Your task to perform on an android device: Open battery settings Image 0: 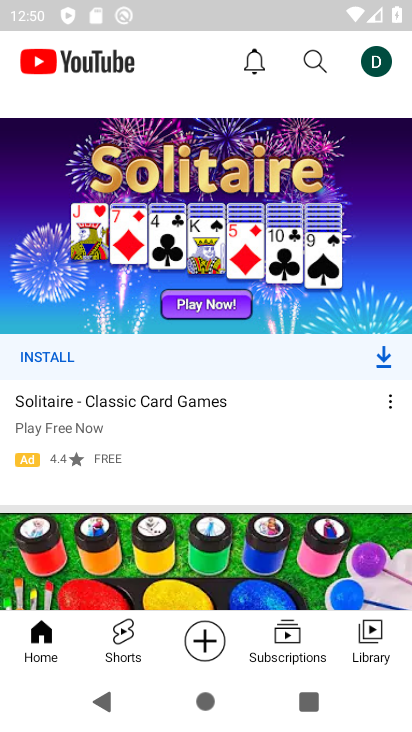
Step 0: press home button
Your task to perform on an android device: Open battery settings Image 1: 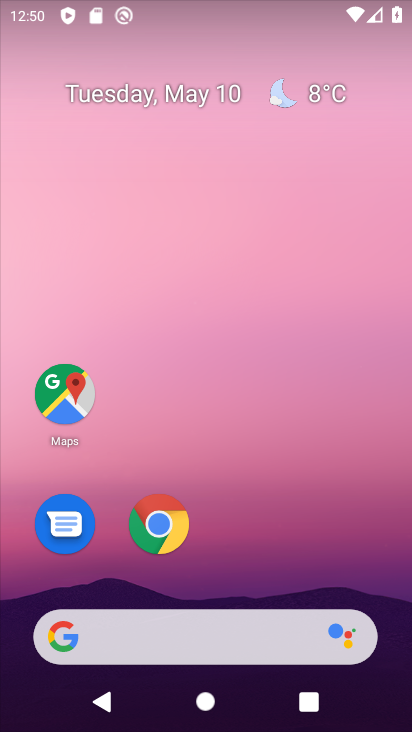
Step 1: drag from (243, 511) to (213, 44)
Your task to perform on an android device: Open battery settings Image 2: 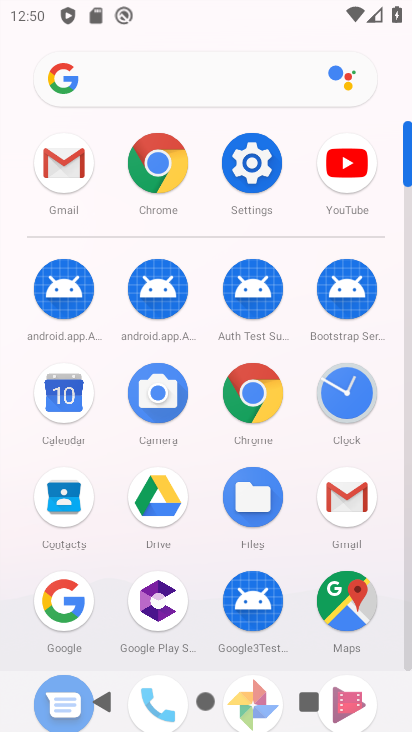
Step 2: click (245, 156)
Your task to perform on an android device: Open battery settings Image 3: 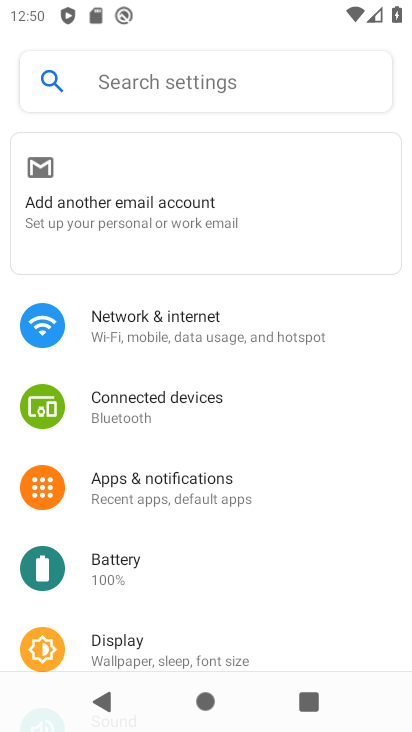
Step 3: click (155, 569)
Your task to perform on an android device: Open battery settings Image 4: 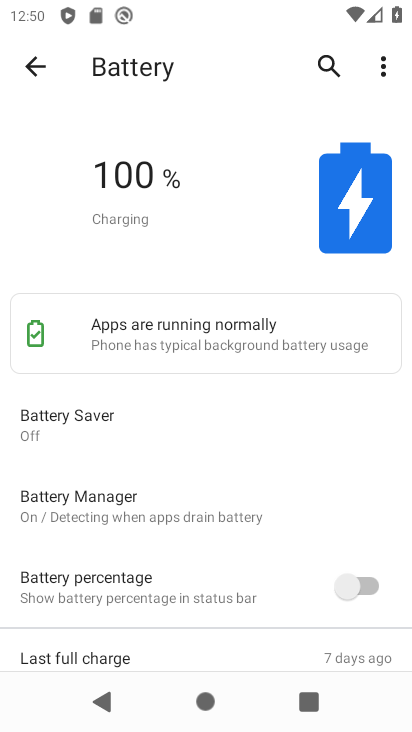
Step 4: task complete